Your task to perform on an android device: Go to Android settings Image 0: 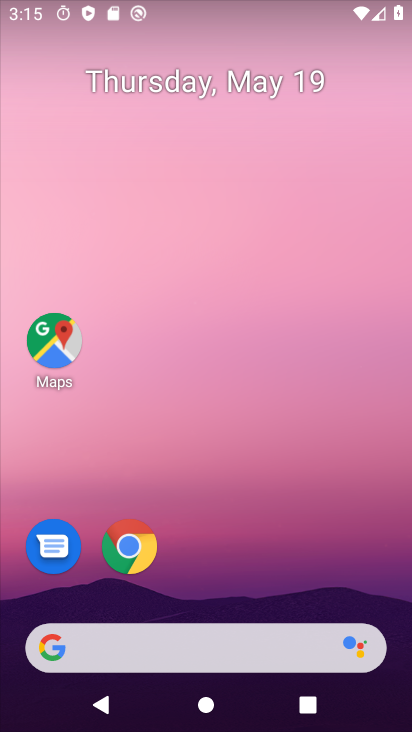
Step 0: drag from (209, 603) to (249, 68)
Your task to perform on an android device: Go to Android settings Image 1: 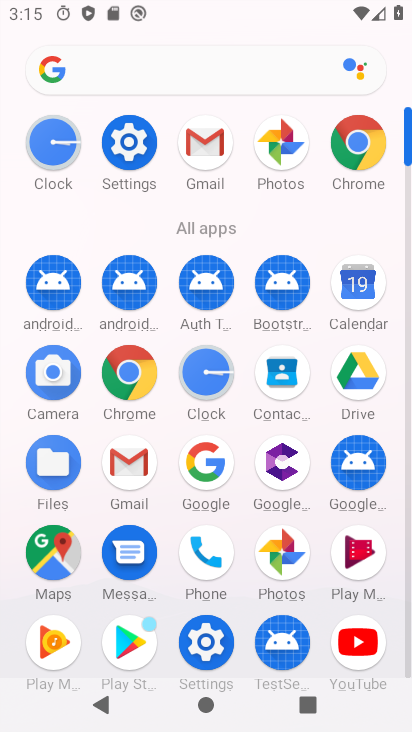
Step 1: click (132, 132)
Your task to perform on an android device: Go to Android settings Image 2: 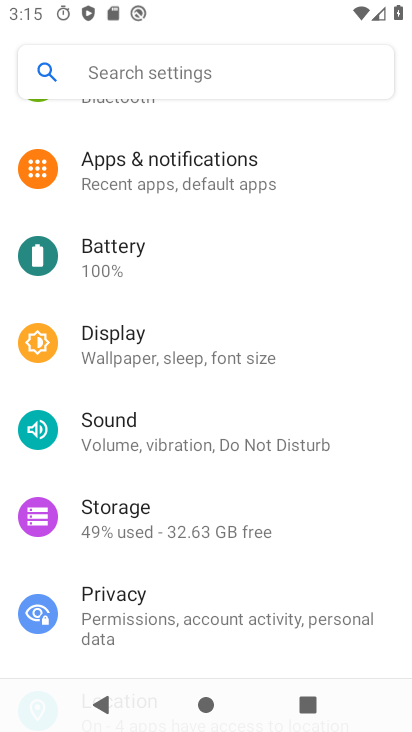
Step 2: drag from (183, 639) to (234, 198)
Your task to perform on an android device: Go to Android settings Image 3: 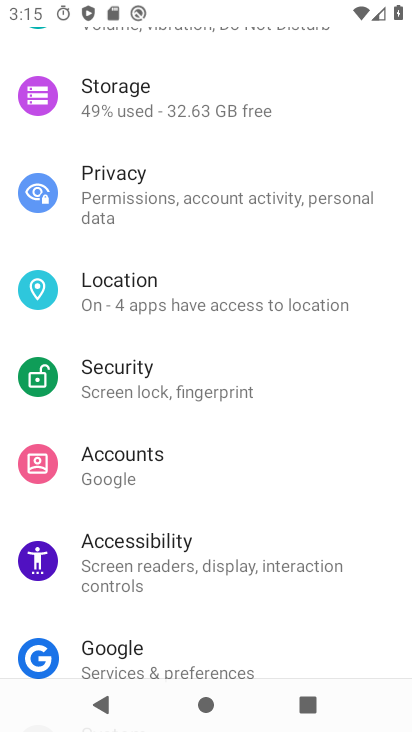
Step 3: drag from (192, 633) to (237, 107)
Your task to perform on an android device: Go to Android settings Image 4: 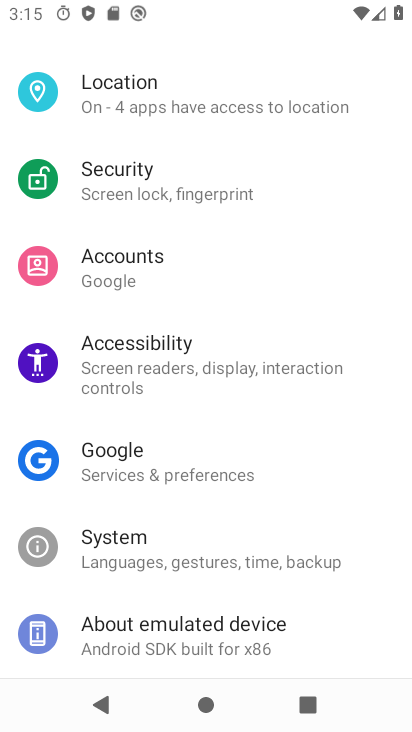
Step 4: click (188, 640)
Your task to perform on an android device: Go to Android settings Image 5: 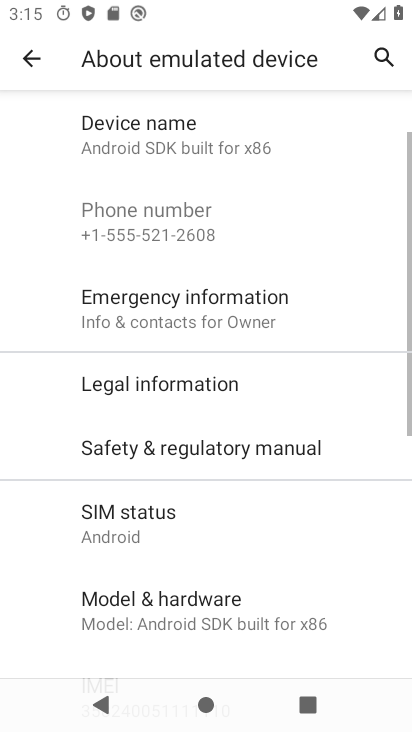
Step 5: drag from (165, 564) to (207, 169)
Your task to perform on an android device: Go to Android settings Image 6: 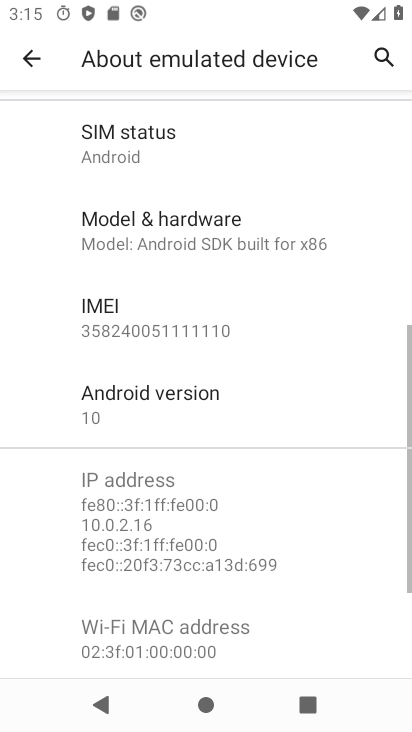
Step 6: click (138, 407)
Your task to perform on an android device: Go to Android settings Image 7: 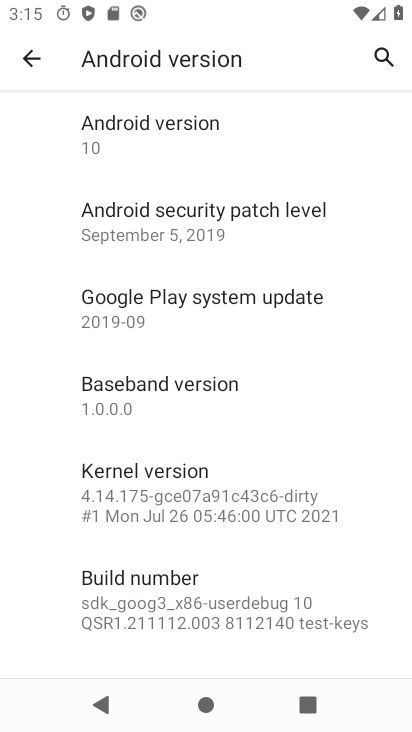
Step 7: task complete